Your task to perform on an android device: refresh tabs in the chrome app Image 0: 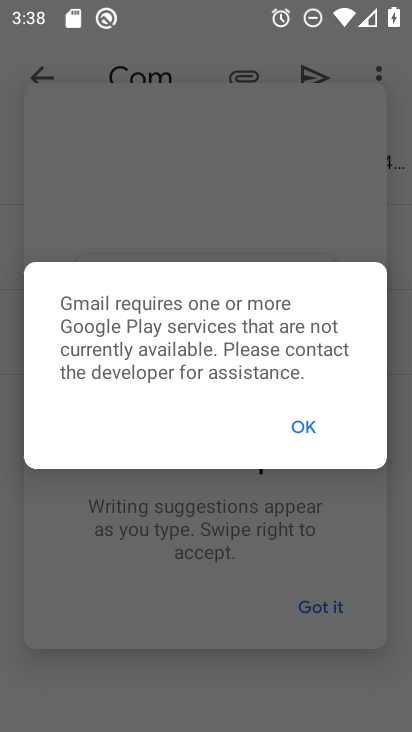
Step 0: press home button
Your task to perform on an android device: refresh tabs in the chrome app Image 1: 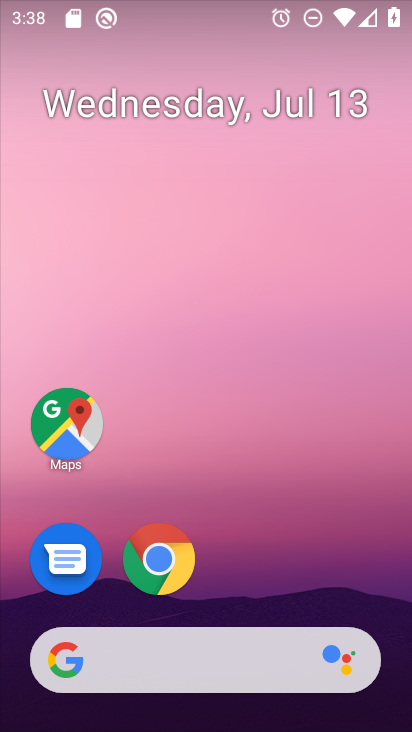
Step 1: drag from (320, 565) to (314, 154)
Your task to perform on an android device: refresh tabs in the chrome app Image 2: 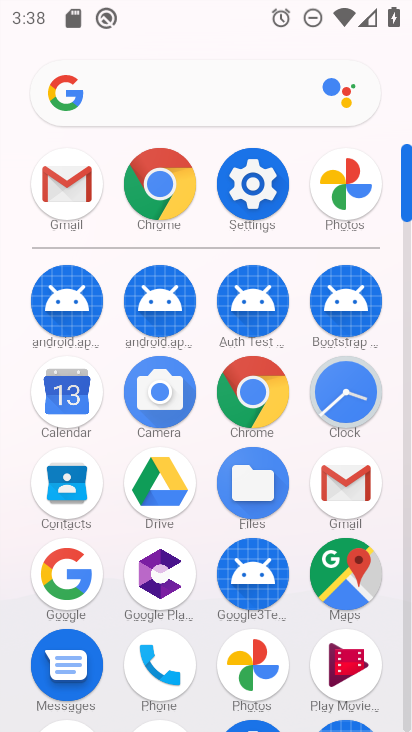
Step 2: click (249, 386)
Your task to perform on an android device: refresh tabs in the chrome app Image 3: 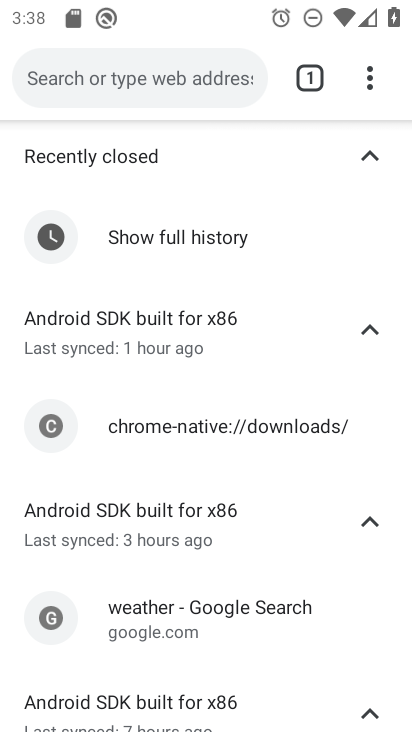
Step 3: click (370, 87)
Your task to perform on an android device: refresh tabs in the chrome app Image 4: 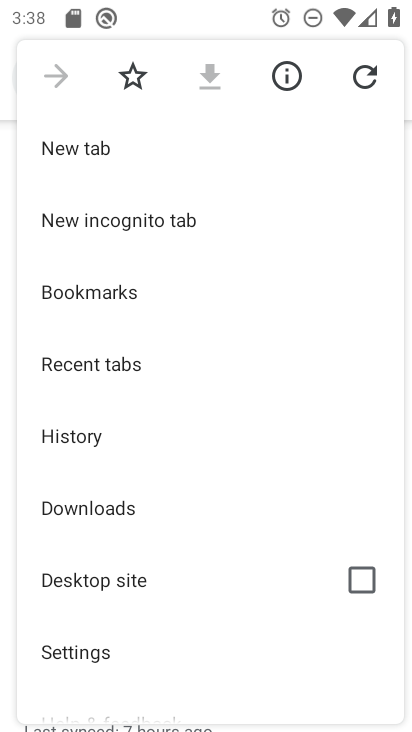
Step 4: drag from (272, 392) to (270, 294)
Your task to perform on an android device: refresh tabs in the chrome app Image 5: 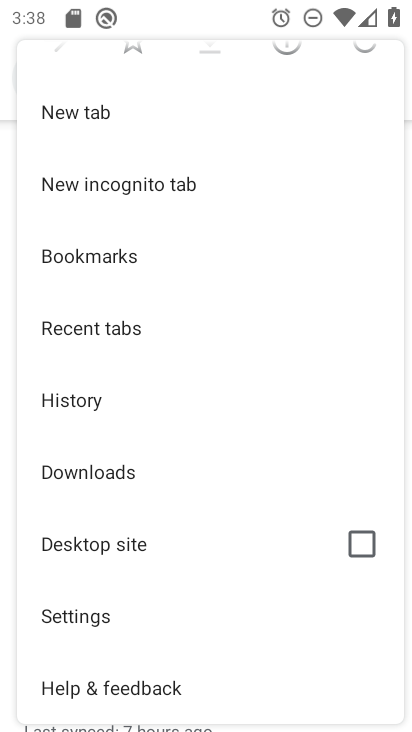
Step 5: drag from (250, 434) to (253, 332)
Your task to perform on an android device: refresh tabs in the chrome app Image 6: 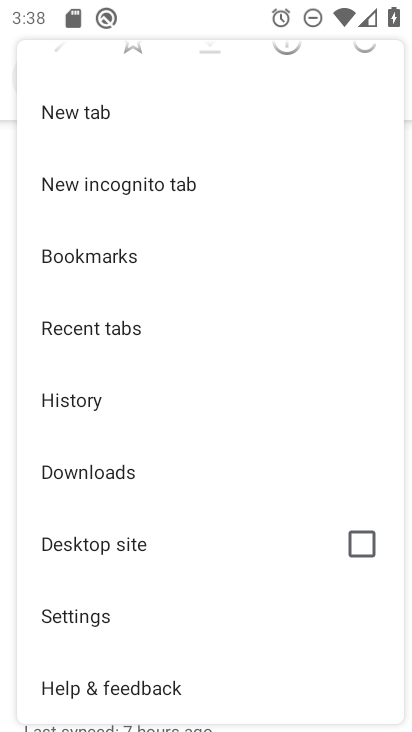
Step 6: drag from (327, 149) to (322, 309)
Your task to perform on an android device: refresh tabs in the chrome app Image 7: 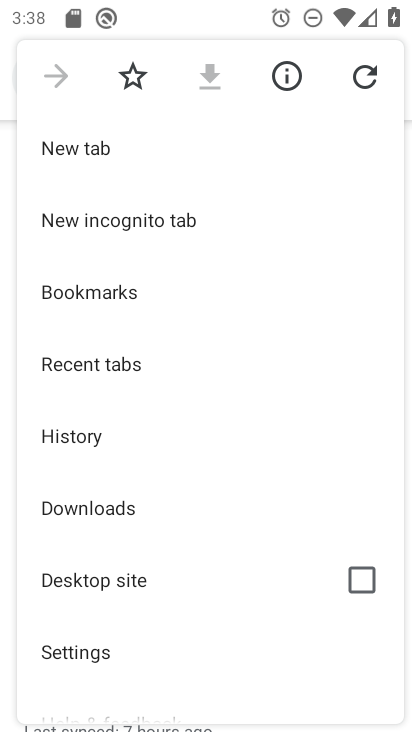
Step 7: click (360, 71)
Your task to perform on an android device: refresh tabs in the chrome app Image 8: 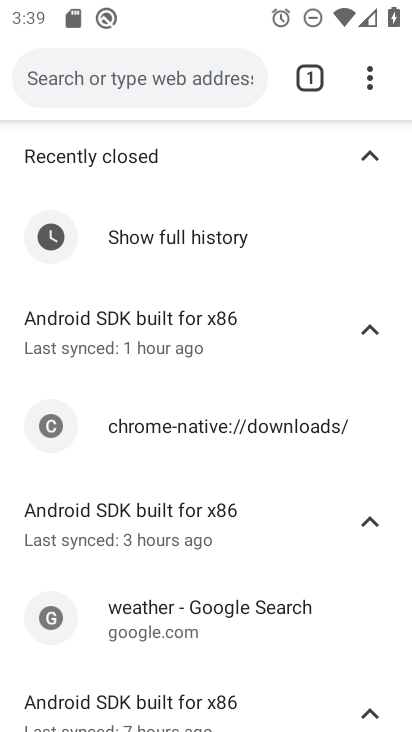
Step 8: task complete